Your task to perform on an android device: manage bookmarks in the chrome app Image 0: 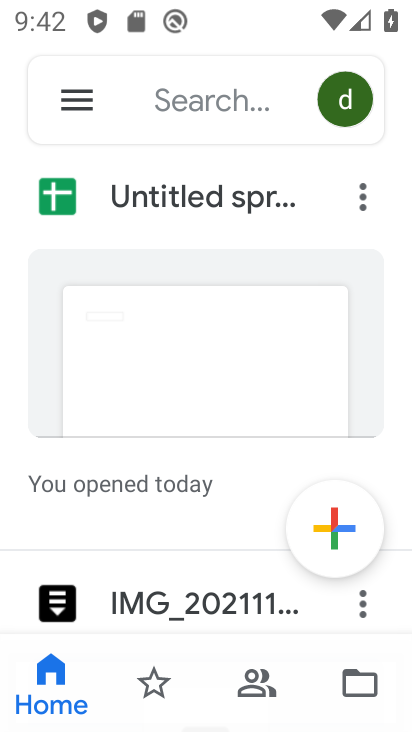
Step 0: press home button
Your task to perform on an android device: manage bookmarks in the chrome app Image 1: 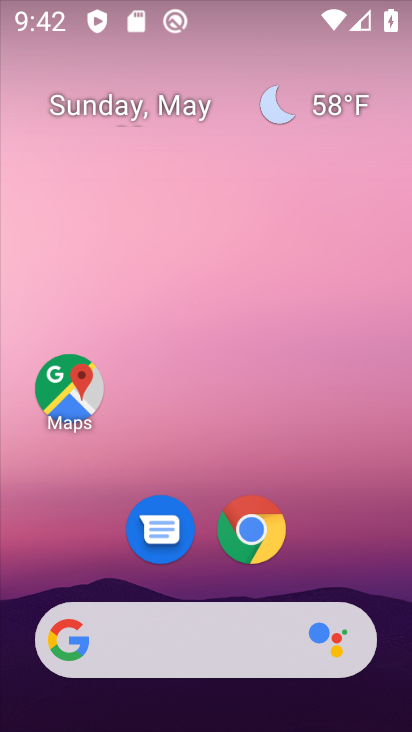
Step 1: click (252, 544)
Your task to perform on an android device: manage bookmarks in the chrome app Image 2: 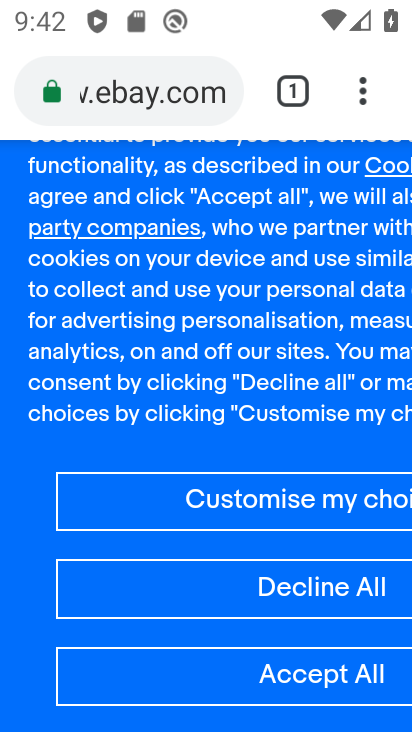
Step 2: click (357, 98)
Your task to perform on an android device: manage bookmarks in the chrome app Image 3: 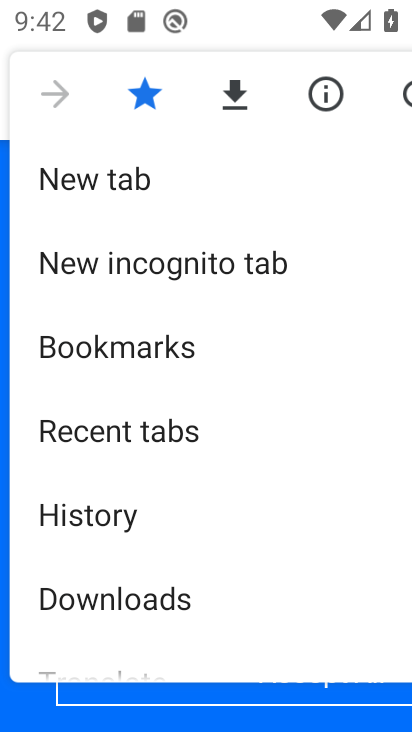
Step 3: click (178, 334)
Your task to perform on an android device: manage bookmarks in the chrome app Image 4: 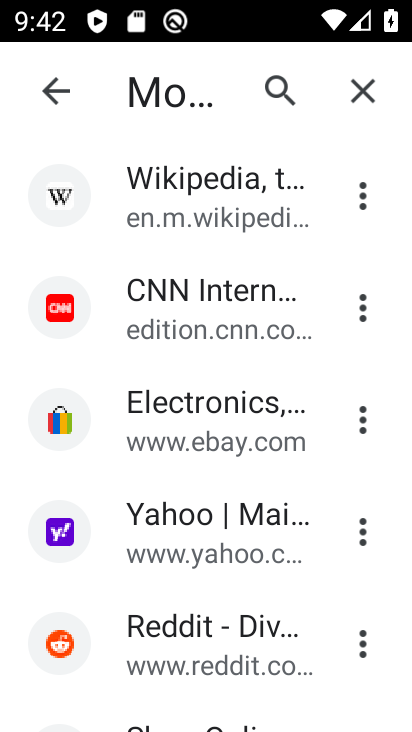
Step 4: click (365, 195)
Your task to perform on an android device: manage bookmarks in the chrome app Image 5: 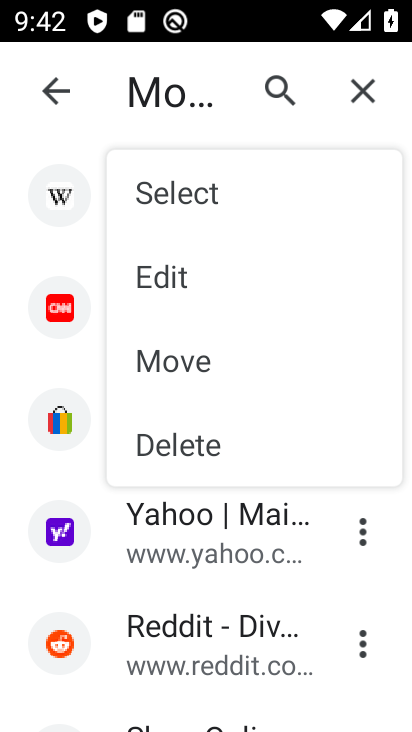
Step 5: click (212, 198)
Your task to perform on an android device: manage bookmarks in the chrome app Image 6: 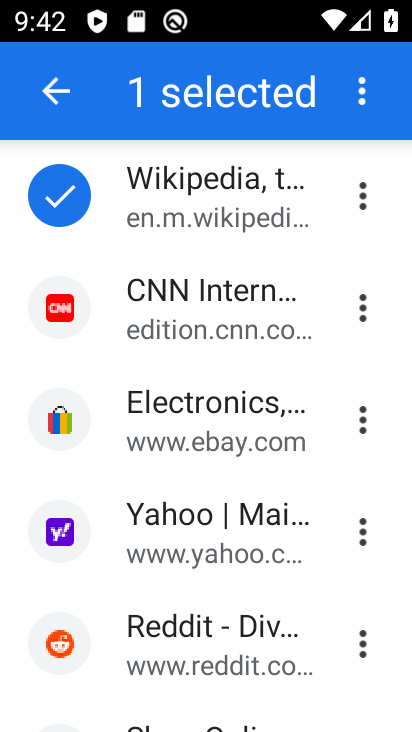
Step 6: click (82, 324)
Your task to perform on an android device: manage bookmarks in the chrome app Image 7: 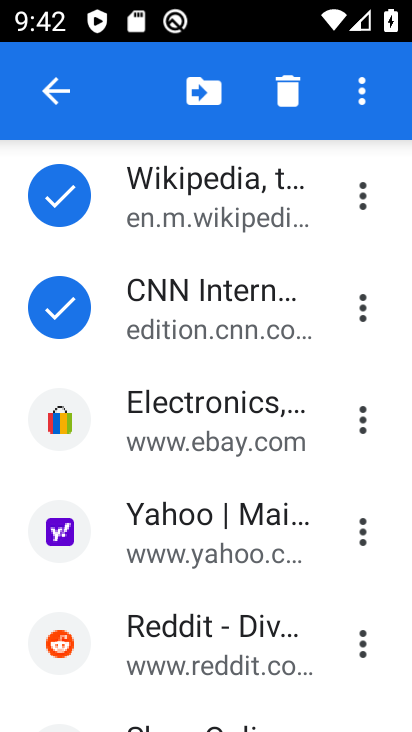
Step 7: click (72, 407)
Your task to perform on an android device: manage bookmarks in the chrome app Image 8: 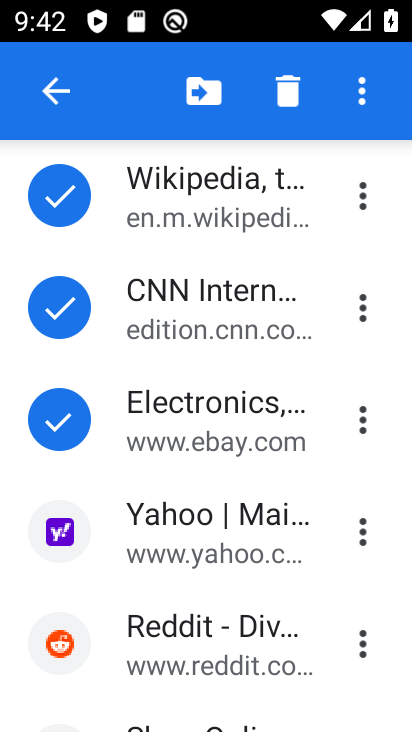
Step 8: click (54, 570)
Your task to perform on an android device: manage bookmarks in the chrome app Image 9: 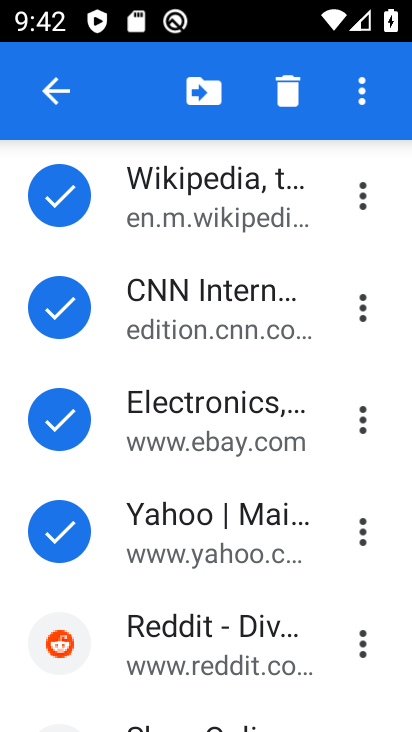
Step 9: drag from (150, 611) to (226, 251)
Your task to perform on an android device: manage bookmarks in the chrome app Image 10: 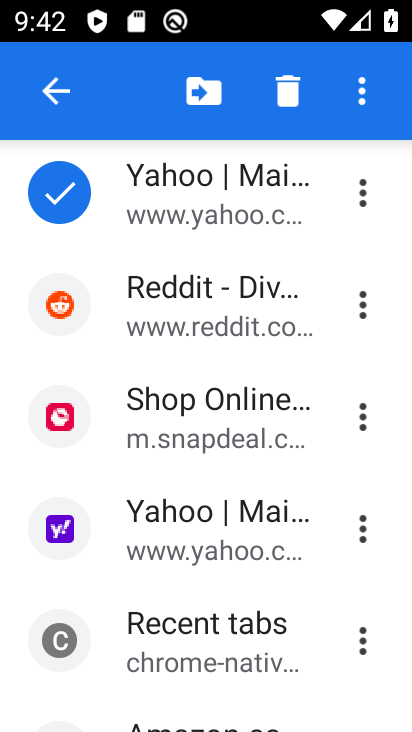
Step 10: click (179, 315)
Your task to perform on an android device: manage bookmarks in the chrome app Image 11: 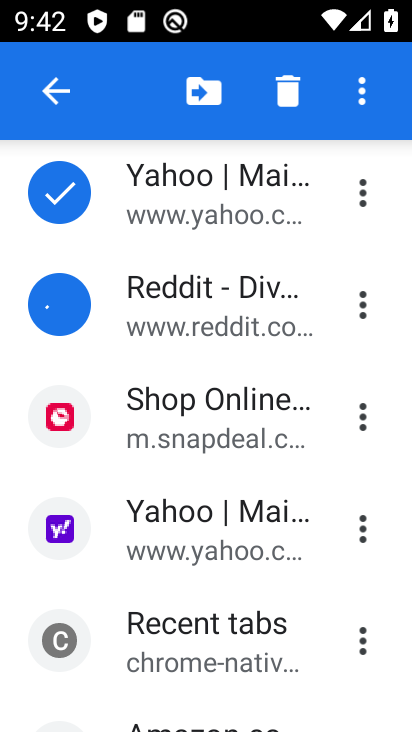
Step 11: click (173, 478)
Your task to perform on an android device: manage bookmarks in the chrome app Image 12: 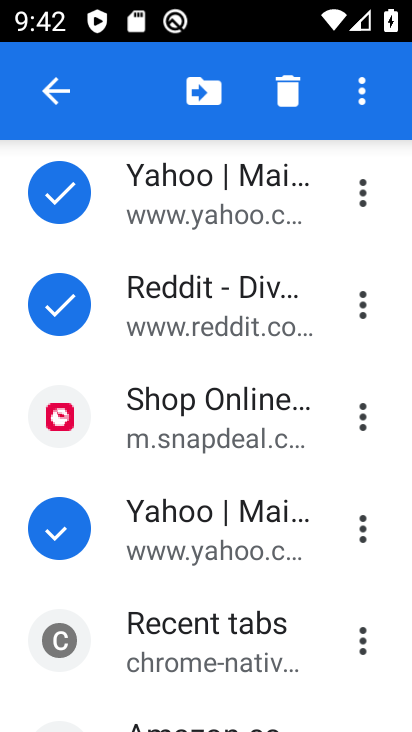
Step 12: click (161, 541)
Your task to perform on an android device: manage bookmarks in the chrome app Image 13: 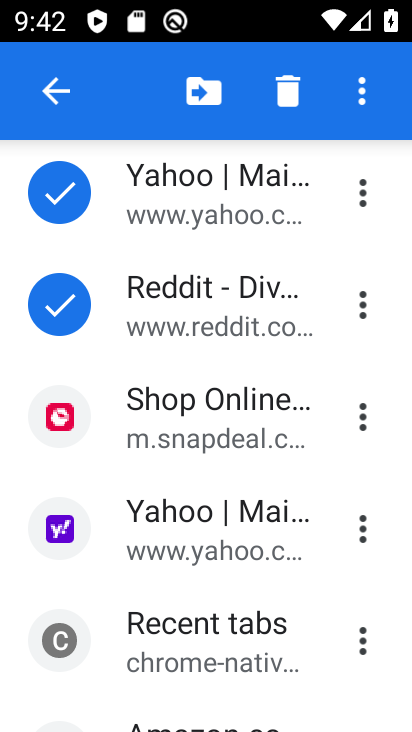
Step 13: click (166, 617)
Your task to perform on an android device: manage bookmarks in the chrome app Image 14: 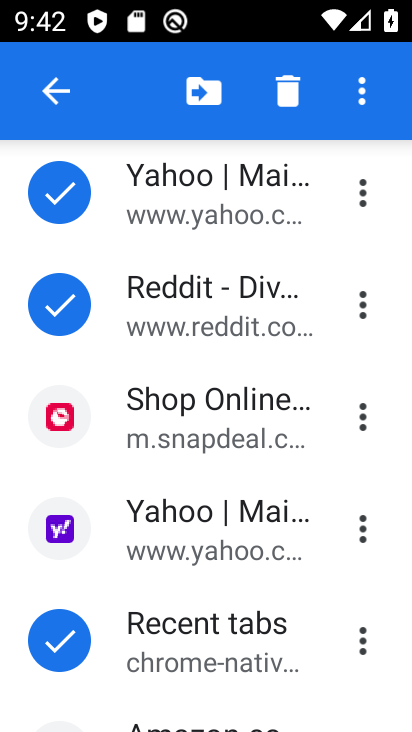
Step 14: click (195, 404)
Your task to perform on an android device: manage bookmarks in the chrome app Image 15: 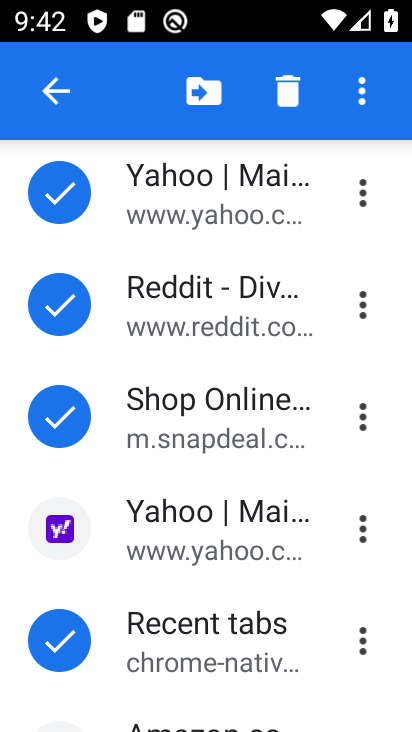
Step 15: click (196, 529)
Your task to perform on an android device: manage bookmarks in the chrome app Image 16: 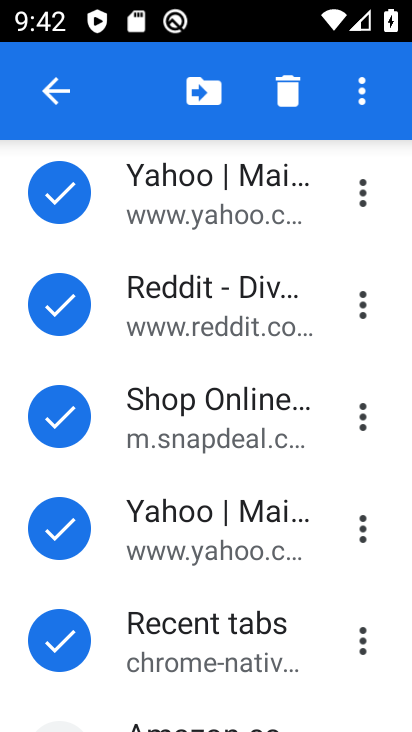
Step 16: drag from (189, 621) to (269, 140)
Your task to perform on an android device: manage bookmarks in the chrome app Image 17: 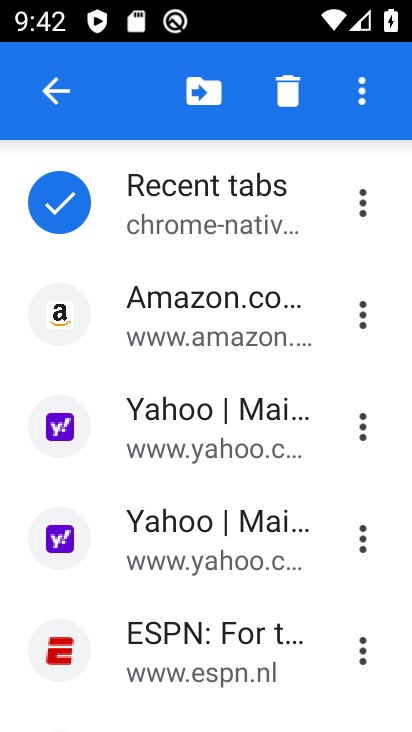
Step 17: click (196, 308)
Your task to perform on an android device: manage bookmarks in the chrome app Image 18: 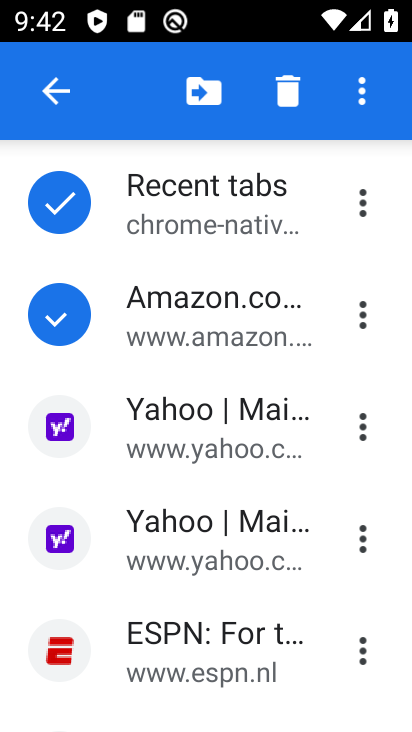
Step 18: click (183, 439)
Your task to perform on an android device: manage bookmarks in the chrome app Image 19: 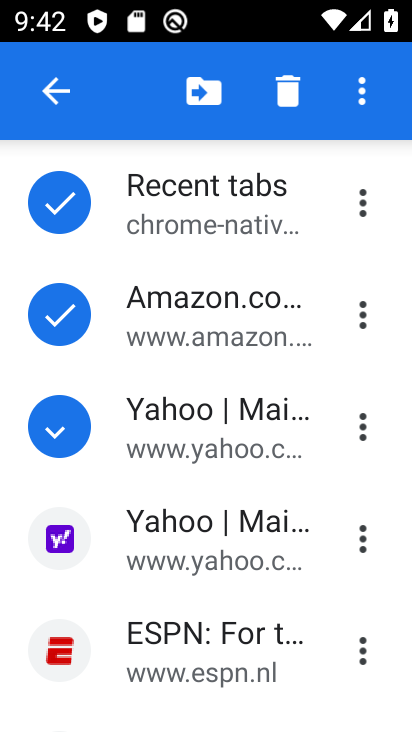
Step 19: click (178, 537)
Your task to perform on an android device: manage bookmarks in the chrome app Image 20: 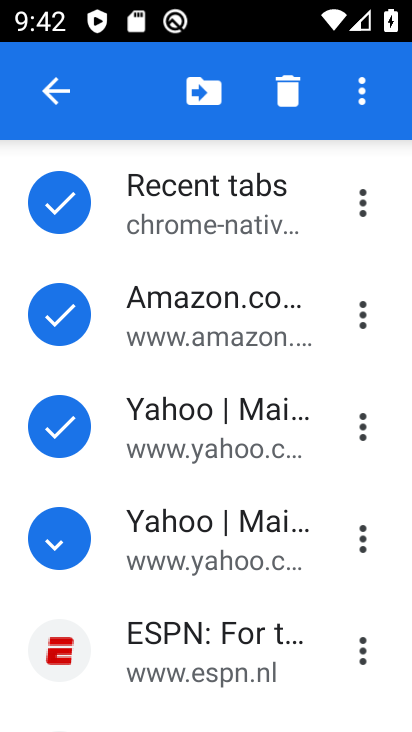
Step 20: click (178, 630)
Your task to perform on an android device: manage bookmarks in the chrome app Image 21: 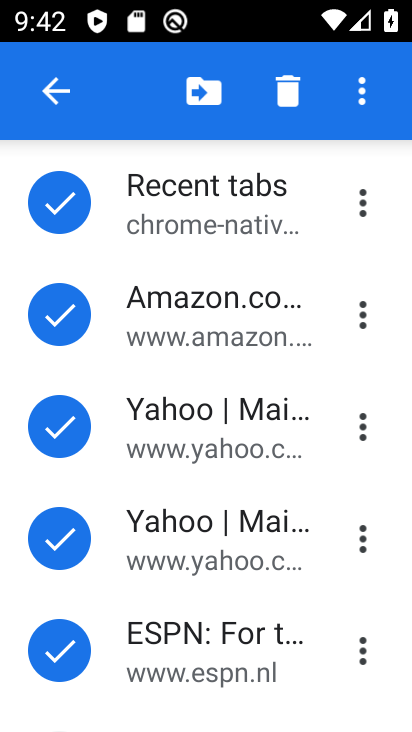
Step 21: drag from (167, 649) to (214, 109)
Your task to perform on an android device: manage bookmarks in the chrome app Image 22: 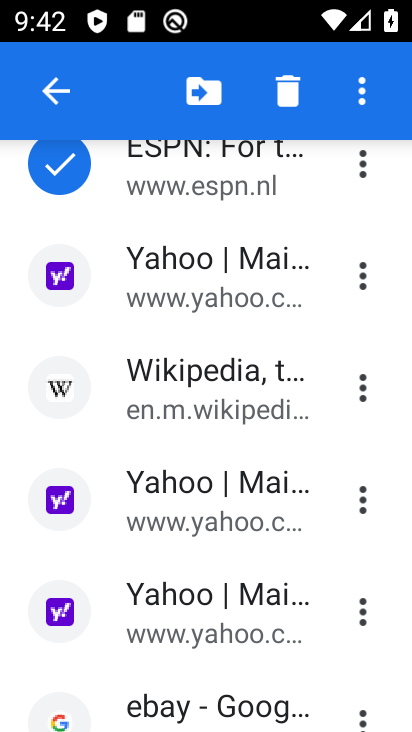
Step 22: click (188, 290)
Your task to perform on an android device: manage bookmarks in the chrome app Image 23: 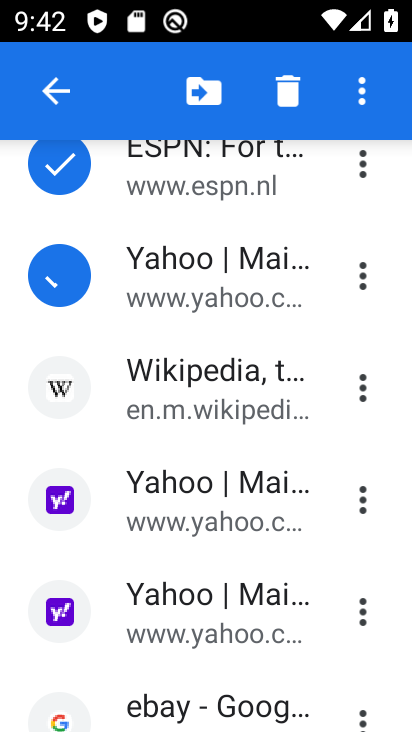
Step 23: click (145, 414)
Your task to perform on an android device: manage bookmarks in the chrome app Image 24: 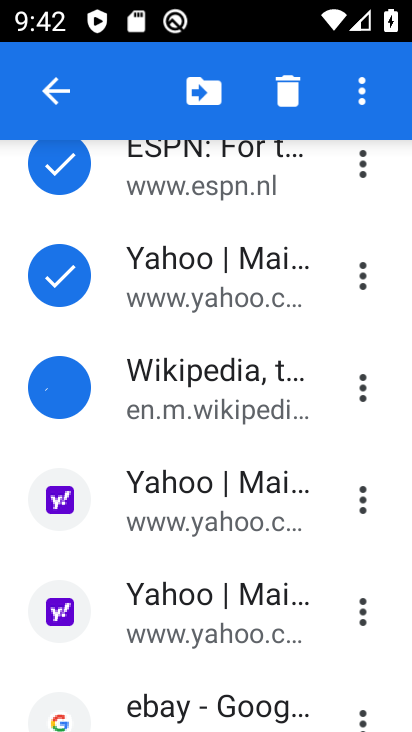
Step 24: click (139, 509)
Your task to perform on an android device: manage bookmarks in the chrome app Image 25: 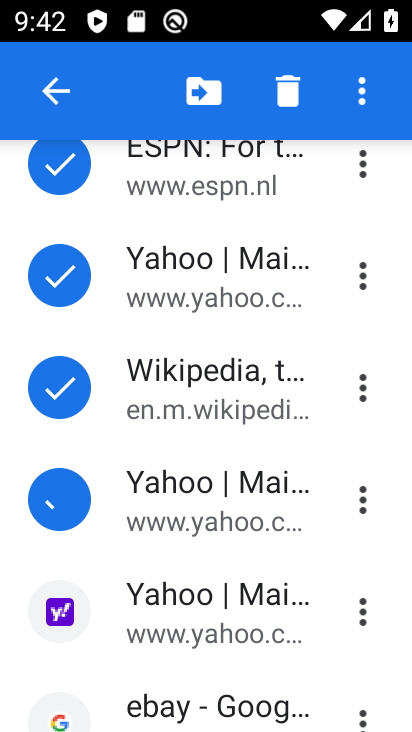
Step 25: click (139, 596)
Your task to perform on an android device: manage bookmarks in the chrome app Image 26: 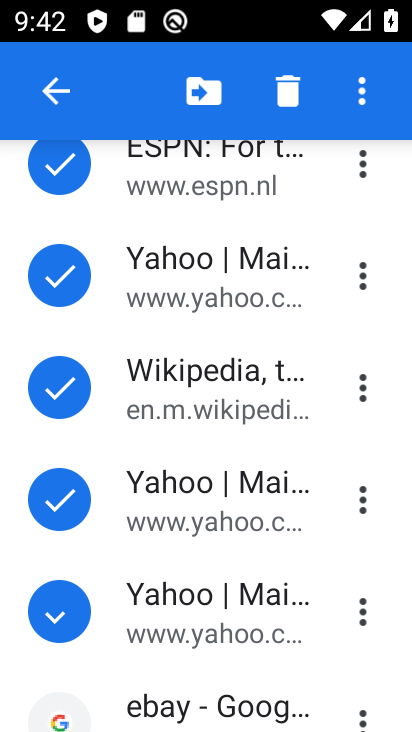
Step 26: click (158, 689)
Your task to perform on an android device: manage bookmarks in the chrome app Image 27: 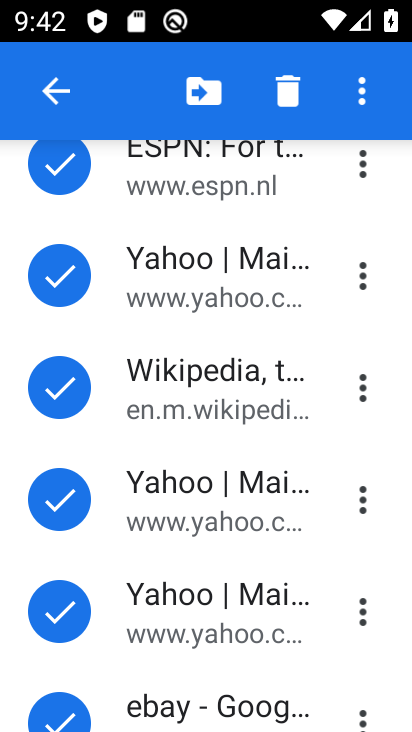
Step 27: click (187, 93)
Your task to perform on an android device: manage bookmarks in the chrome app Image 28: 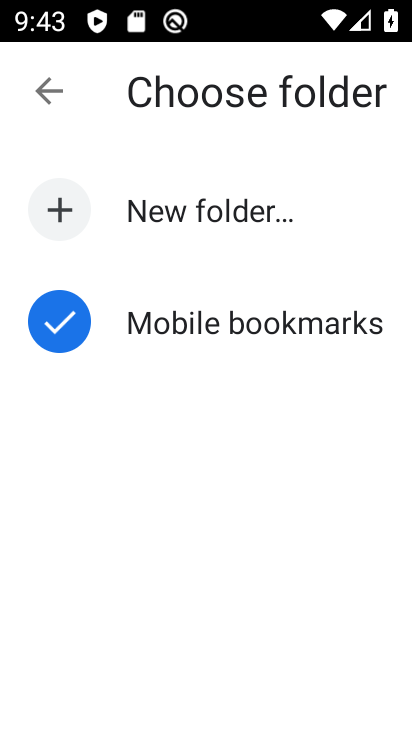
Step 28: click (238, 219)
Your task to perform on an android device: manage bookmarks in the chrome app Image 29: 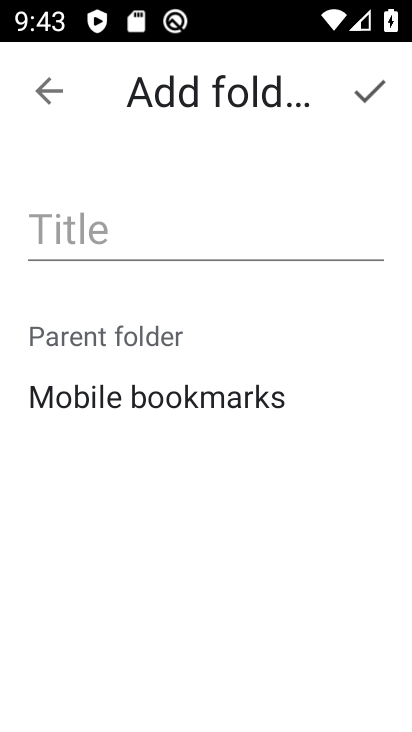
Step 29: click (250, 243)
Your task to perform on an android device: manage bookmarks in the chrome app Image 30: 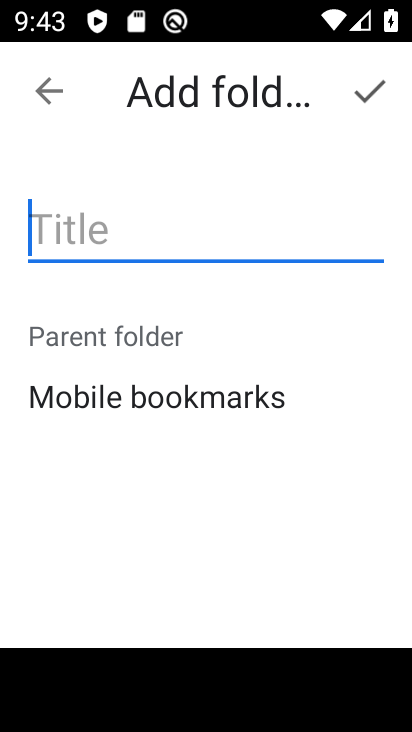
Step 30: type "bannn"
Your task to perform on an android device: manage bookmarks in the chrome app Image 31: 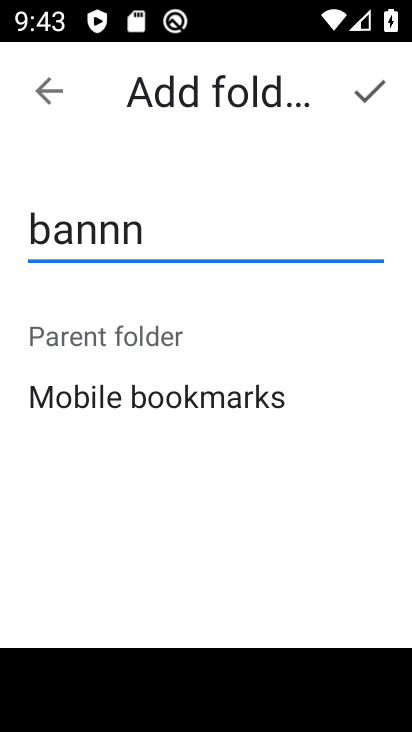
Step 31: click (374, 90)
Your task to perform on an android device: manage bookmarks in the chrome app Image 32: 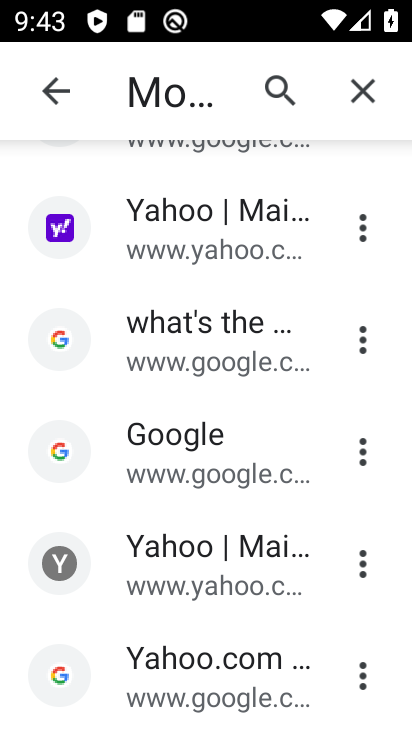
Step 32: task complete